Your task to perform on an android device: Search for vegetarian restaurants on Maps Image 0: 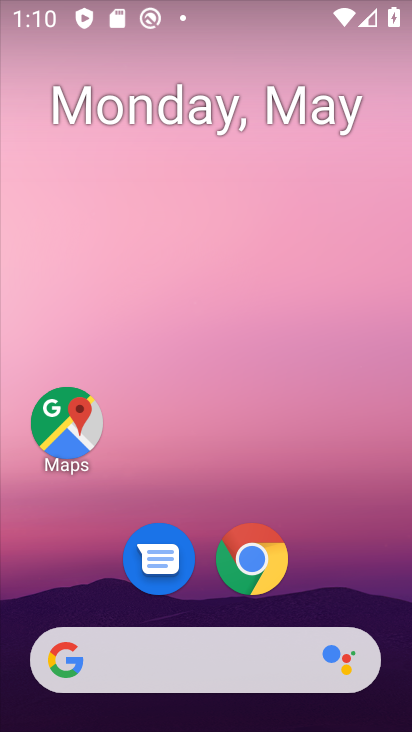
Step 0: click (67, 399)
Your task to perform on an android device: Search for vegetarian restaurants on Maps Image 1: 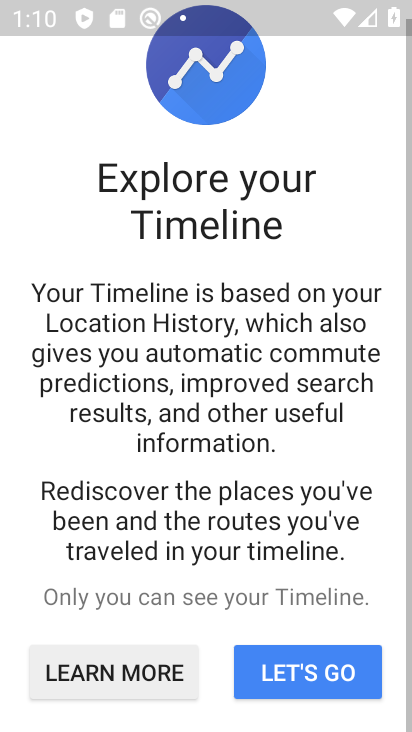
Step 1: drag from (252, 552) to (312, 71)
Your task to perform on an android device: Search for vegetarian restaurants on Maps Image 2: 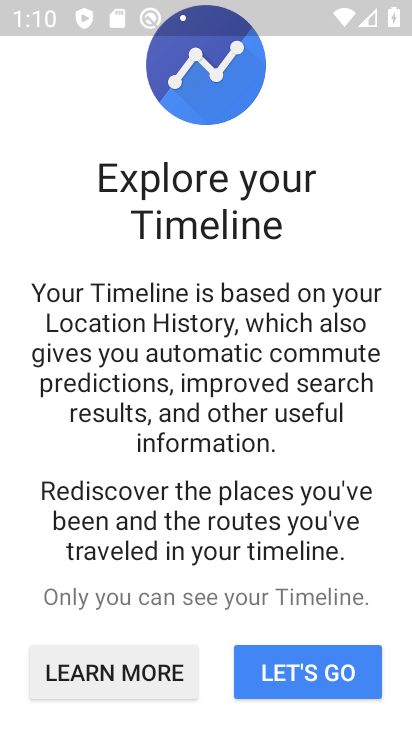
Step 2: press home button
Your task to perform on an android device: Search for vegetarian restaurants on Maps Image 3: 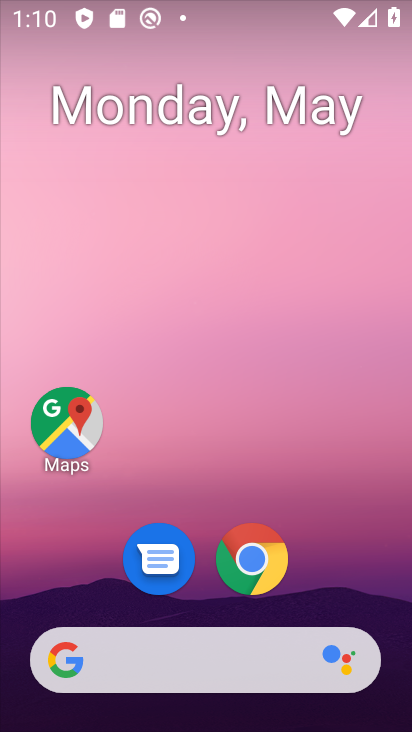
Step 3: click (74, 426)
Your task to perform on an android device: Search for vegetarian restaurants on Maps Image 4: 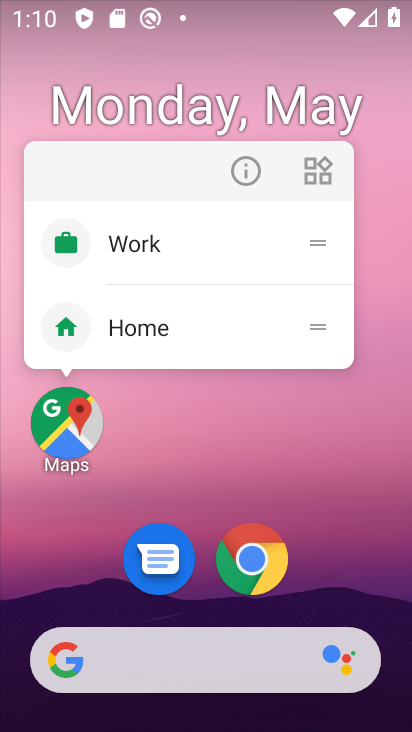
Step 4: click (74, 426)
Your task to perform on an android device: Search for vegetarian restaurants on Maps Image 5: 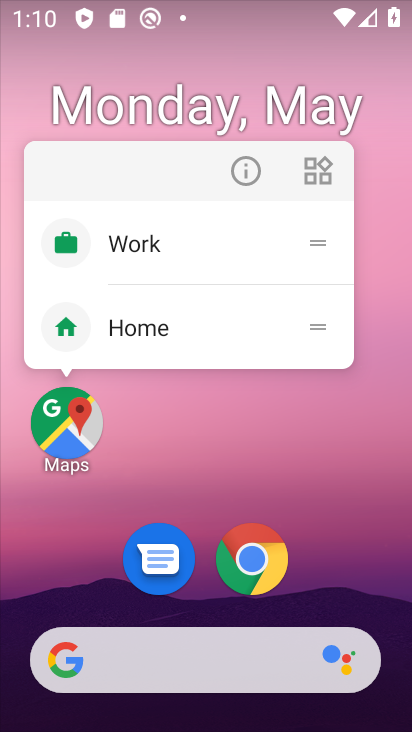
Step 5: click (74, 426)
Your task to perform on an android device: Search for vegetarian restaurants on Maps Image 6: 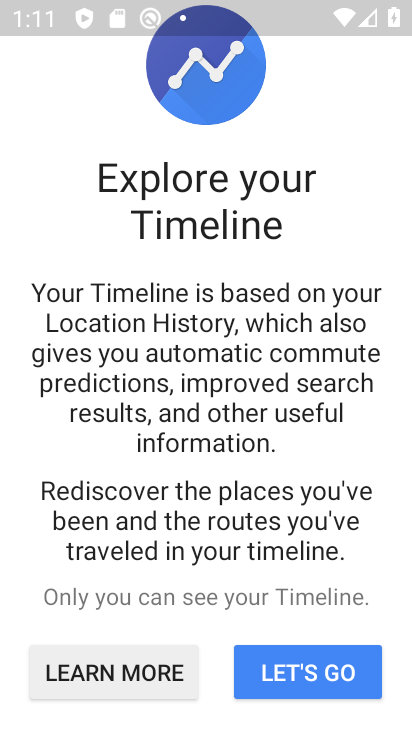
Step 6: press back button
Your task to perform on an android device: Search for vegetarian restaurants on Maps Image 7: 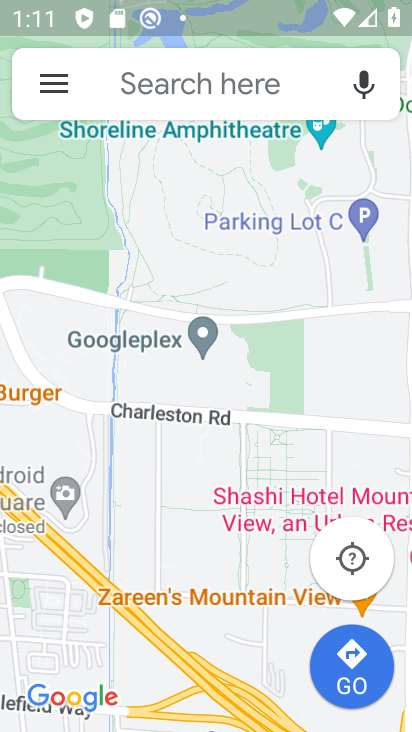
Step 7: click (215, 73)
Your task to perform on an android device: Search for vegetarian restaurants on Maps Image 8: 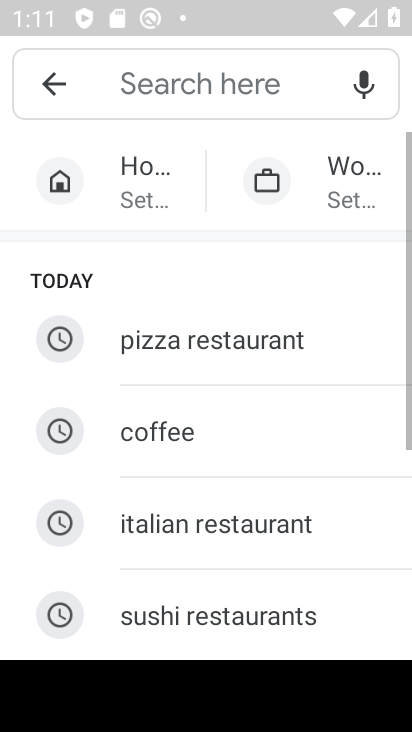
Step 8: drag from (252, 602) to (298, 143)
Your task to perform on an android device: Search for vegetarian restaurants on Maps Image 9: 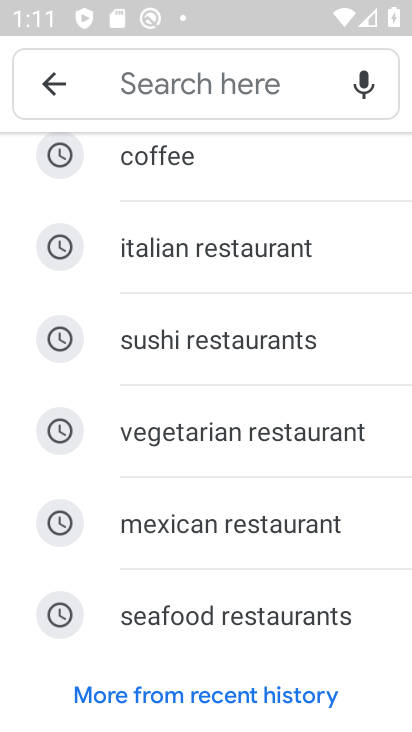
Step 9: click (258, 437)
Your task to perform on an android device: Search for vegetarian restaurants on Maps Image 10: 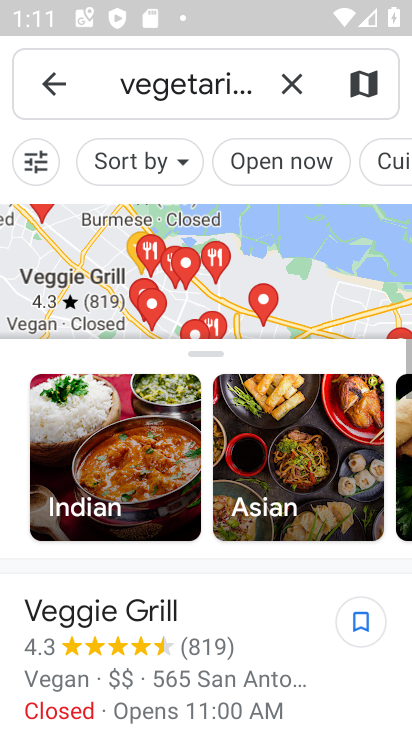
Step 10: task complete